Your task to perform on an android device: change notification settings in the gmail app Image 0: 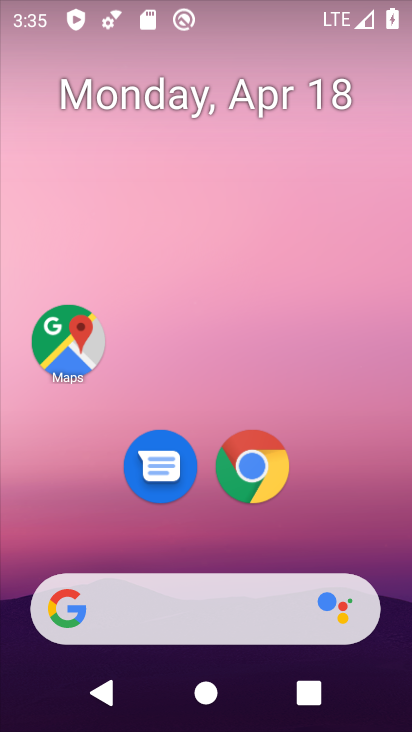
Step 0: drag from (325, 520) to (266, 1)
Your task to perform on an android device: change notification settings in the gmail app Image 1: 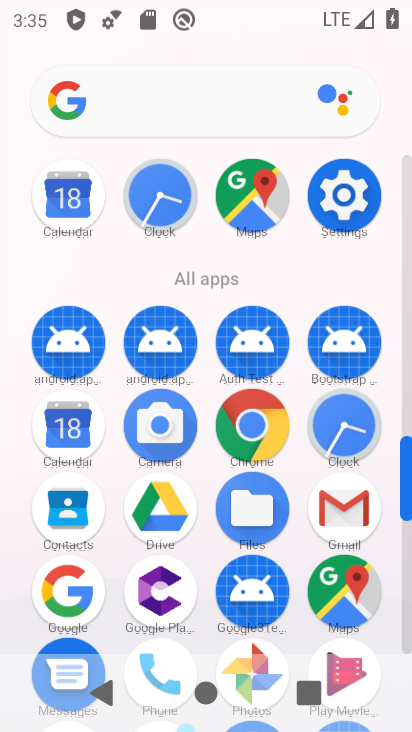
Step 1: click (341, 521)
Your task to perform on an android device: change notification settings in the gmail app Image 2: 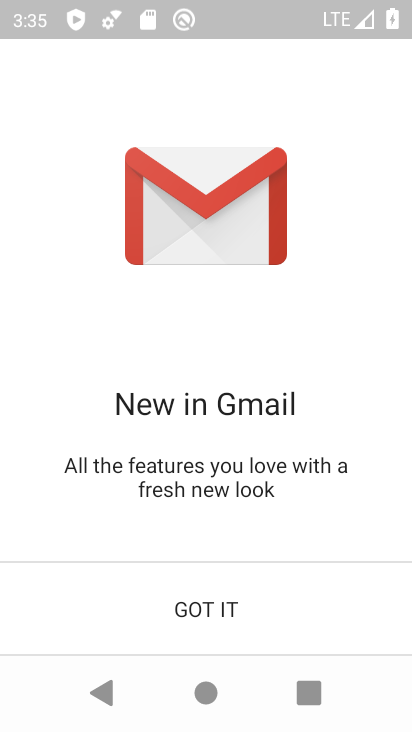
Step 2: click (272, 592)
Your task to perform on an android device: change notification settings in the gmail app Image 3: 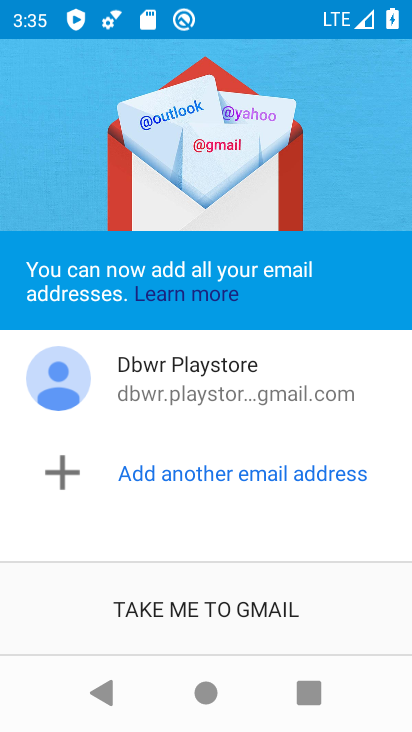
Step 3: click (265, 592)
Your task to perform on an android device: change notification settings in the gmail app Image 4: 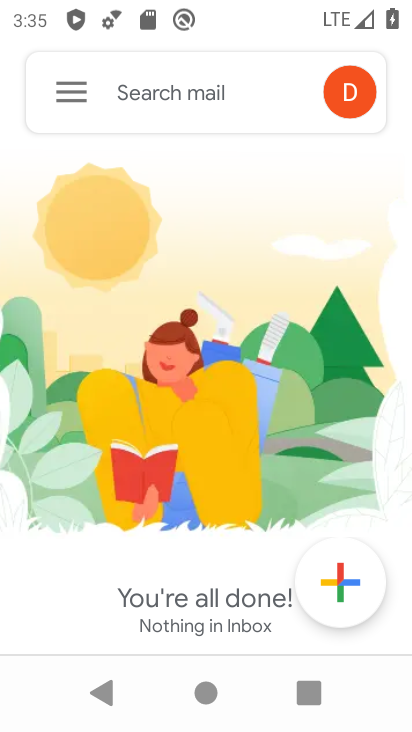
Step 4: click (76, 118)
Your task to perform on an android device: change notification settings in the gmail app Image 5: 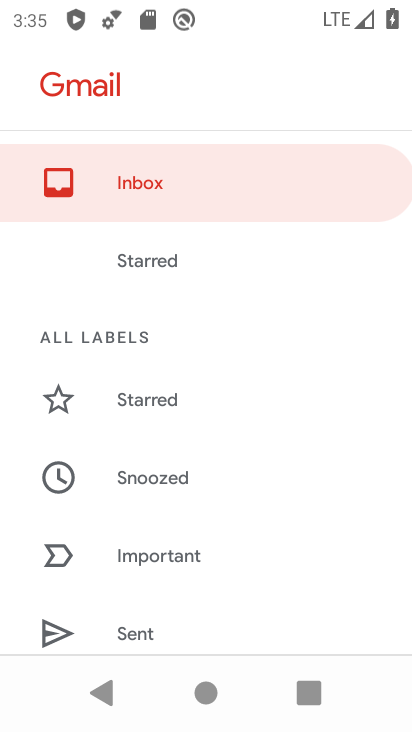
Step 5: drag from (199, 592) to (206, 102)
Your task to perform on an android device: change notification settings in the gmail app Image 6: 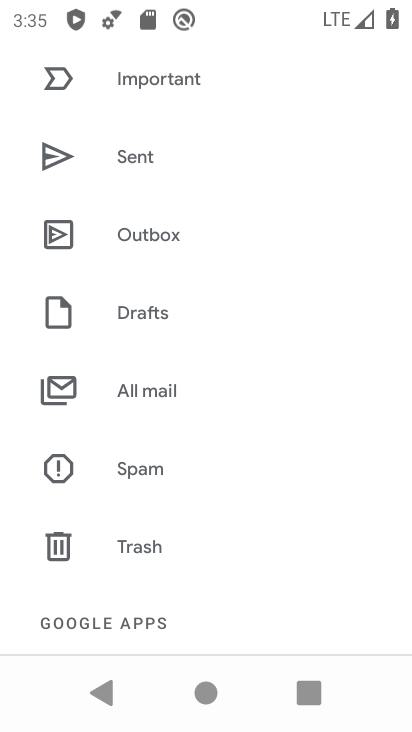
Step 6: drag from (185, 583) to (204, 155)
Your task to perform on an android device: change notification settings in the gmail app Image 7: 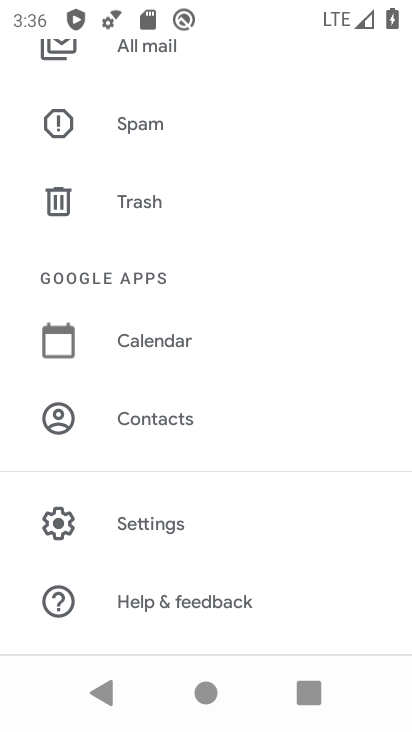
Step 7: click (151, 527)
Your task to perform on an android device: change notification settings in the gmail app Image 8: 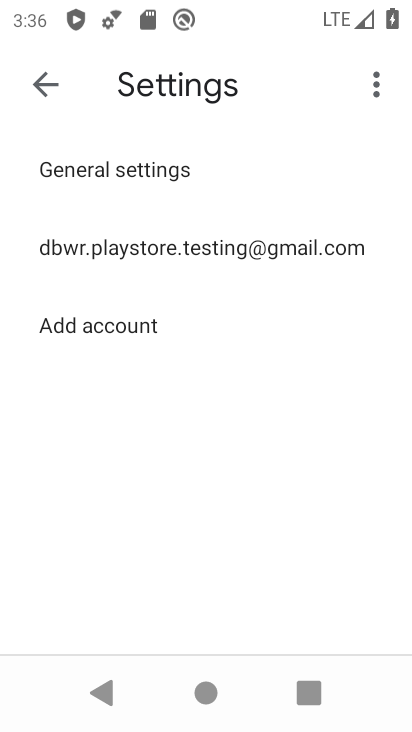
Step 8: click (109, 179)
Your task to perform on an android device: change notification settings in the gmail app Image 9: 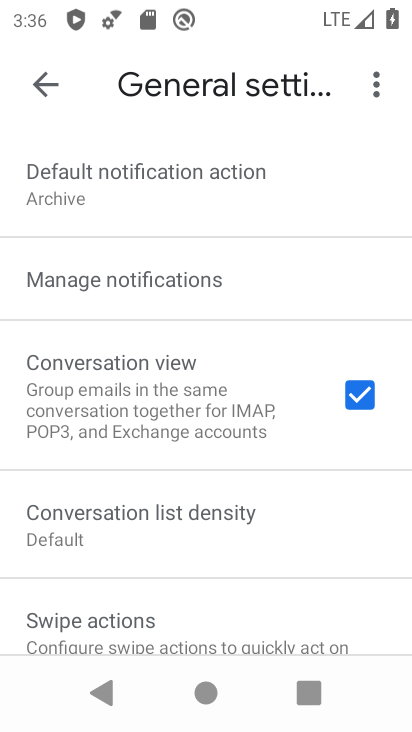
Step 9: click (289, 295)
Your task to perform on an android device: change notification settings in the gmail app Image 10: 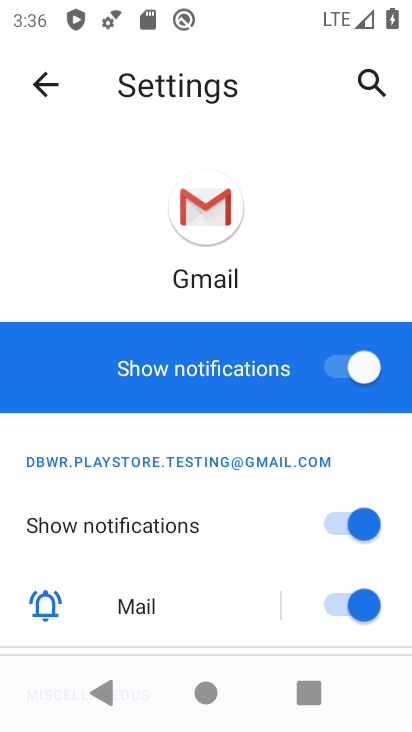
Step 10: task complete